Your task to perform on an android device: uninstall "NewsBreak: Local News & Alerts" Image 0: 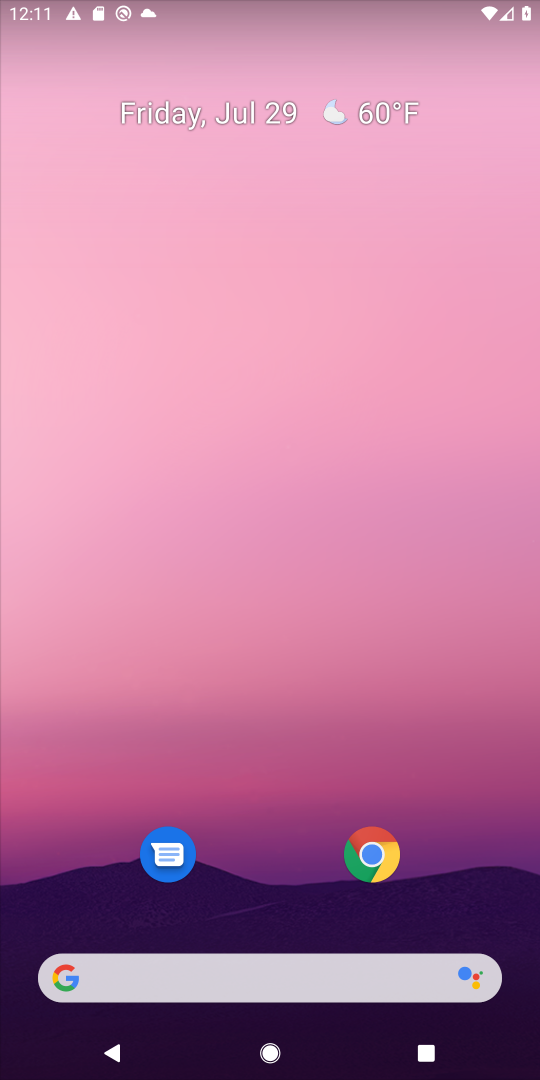
Step 0: drag from (256, 876) to (244, 54)
Your task to perform on an android device: uninstall "NewsBreak: Local News & Alerts" Image 1: 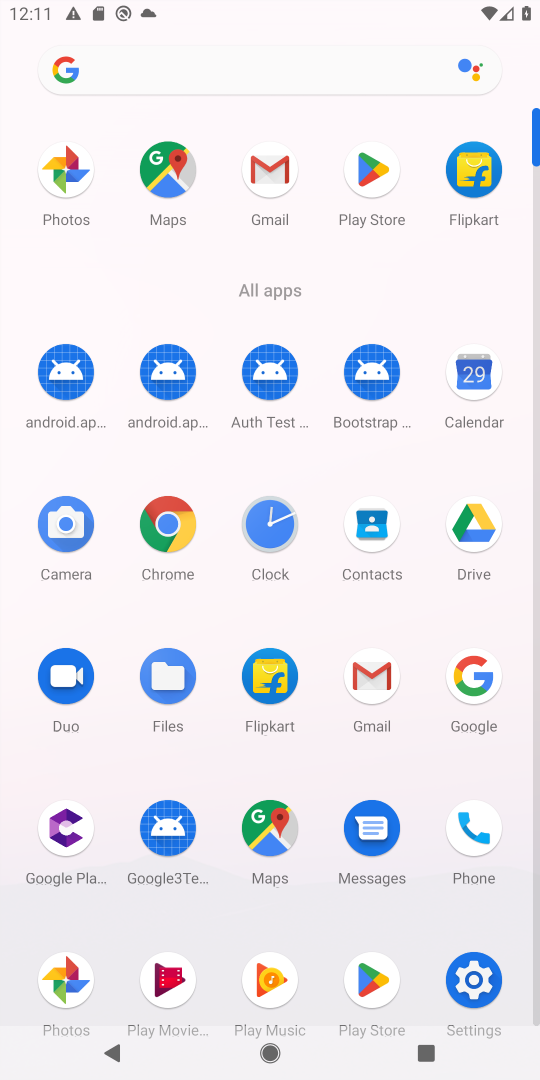
Step 1: click (372, 172)
Your task to perform on an android device: uninstall "NewsBreak: Local News & Alerts" Image 2: 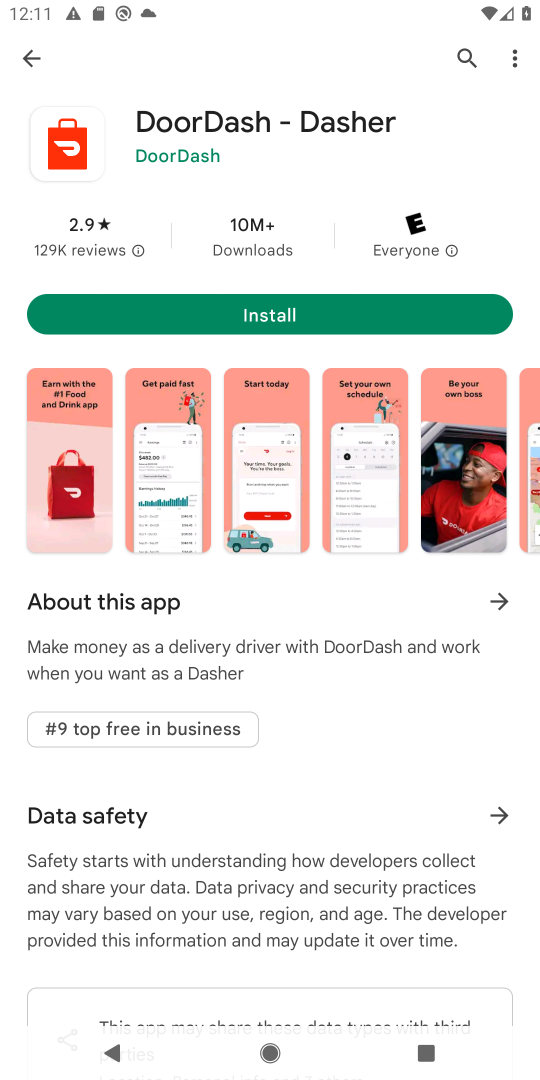
Step 2: click (449, 59)
Your task to perform on an android device: uninstall "NewsBreak: Local News & Alerts" Image 3: 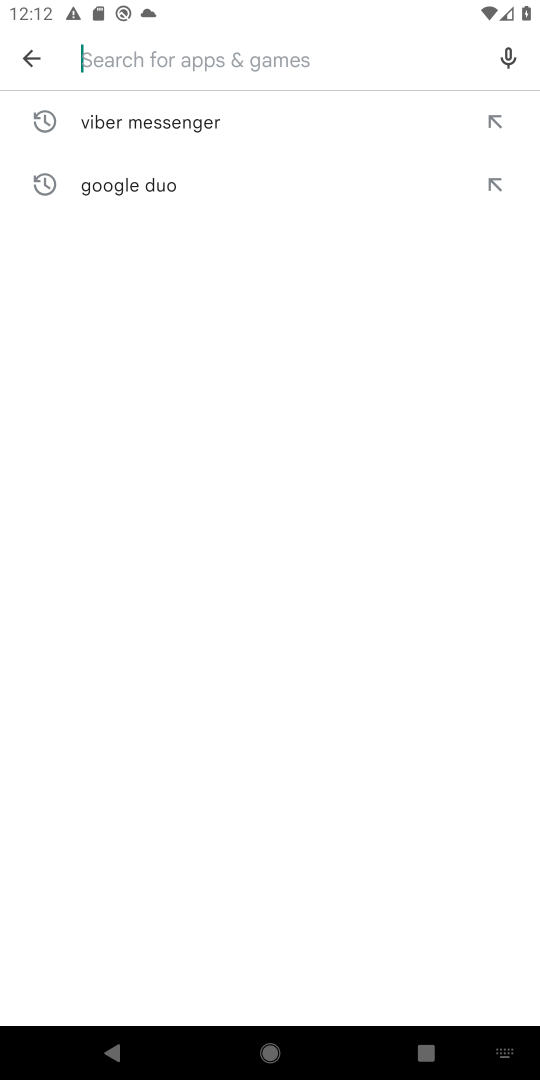
Step 3: type "newsbreak: local news & alerts"
Your task to perform on an android device: uninstall "NewsBreak: Local News & Alerts" Image 4: 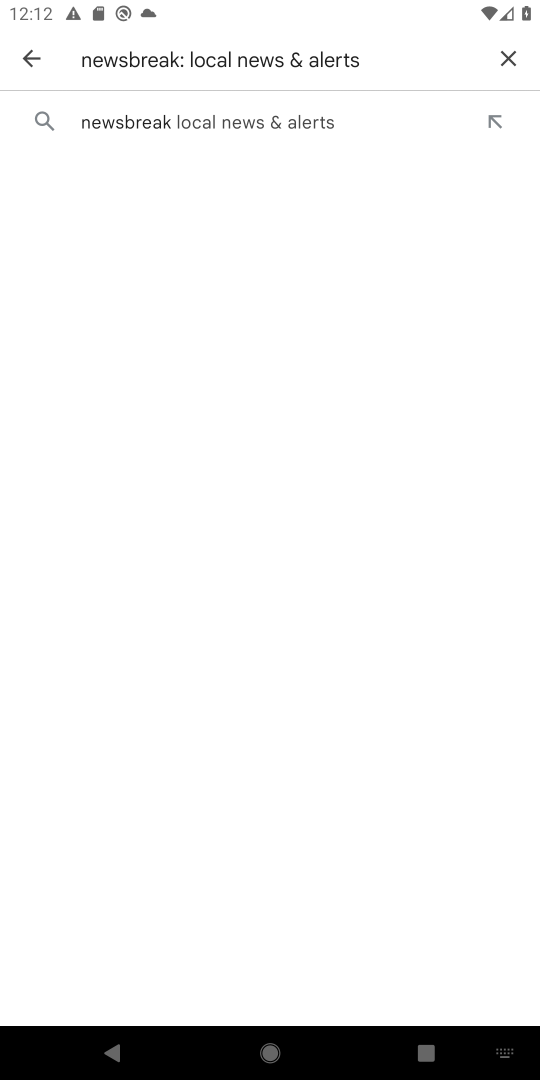
Step 4: click (326, 127)
Your task to perform on an android device: uninstall "NewsBreak: Local News & Alerts" Image 5: 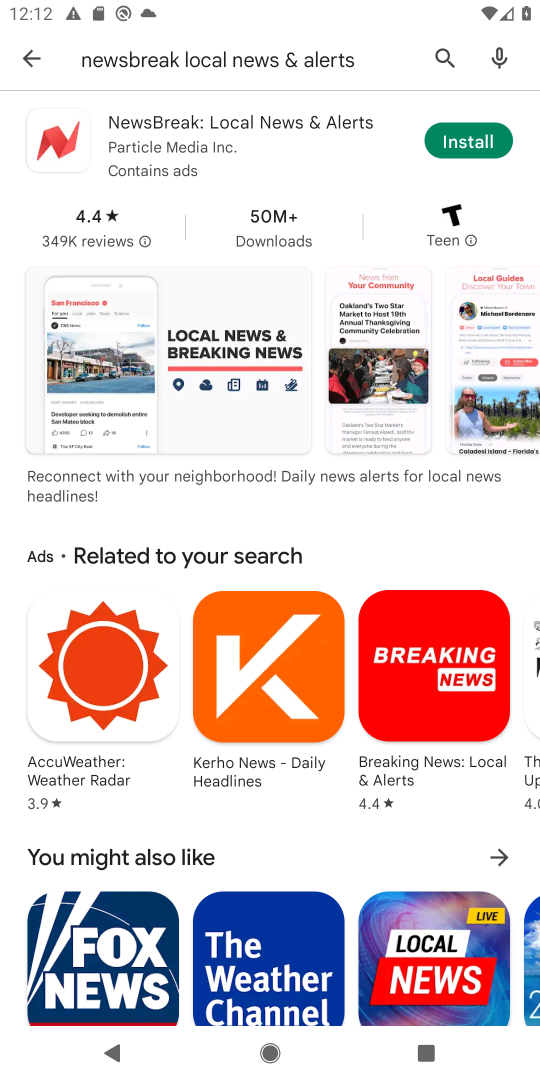
Step 5: click (316, 123)
Your task to perform on an android device: uninstall "NewsBreak: Local News & Alerts" Image 6: 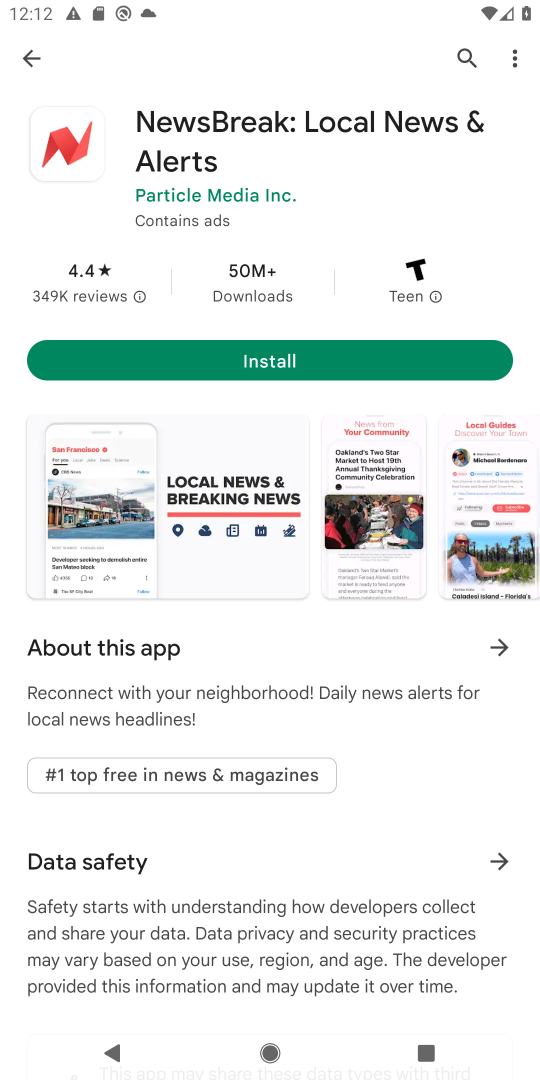
Step 6: task complete